Your task to perform on an android device: What is the recent news? Image 0: 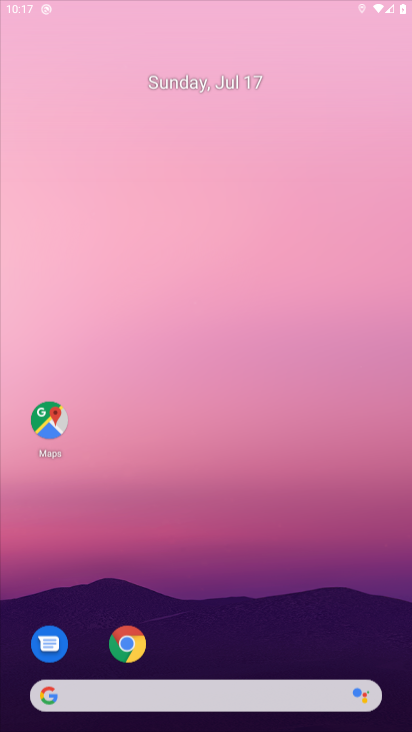
Step 0: press home button
Your task to perform on an android device: What is the recent news? Image 1: 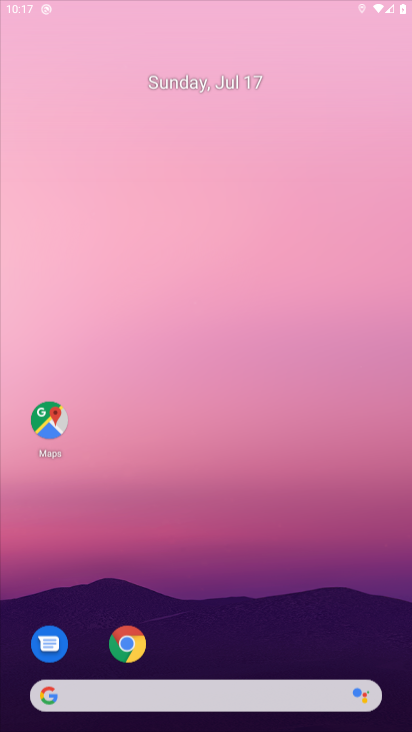
Step 1: click (368, 19)
Your task to perform on an android device: What is the recent news? Image 2: 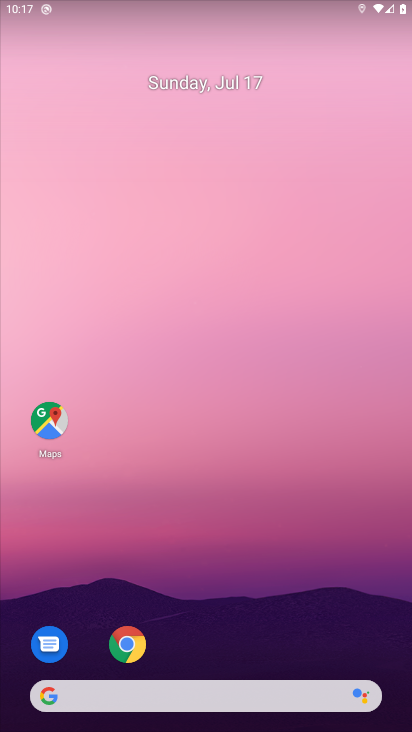
Step 2: click (48, 689)
Your task to perform on an android device: What is the recent news? Image 3: 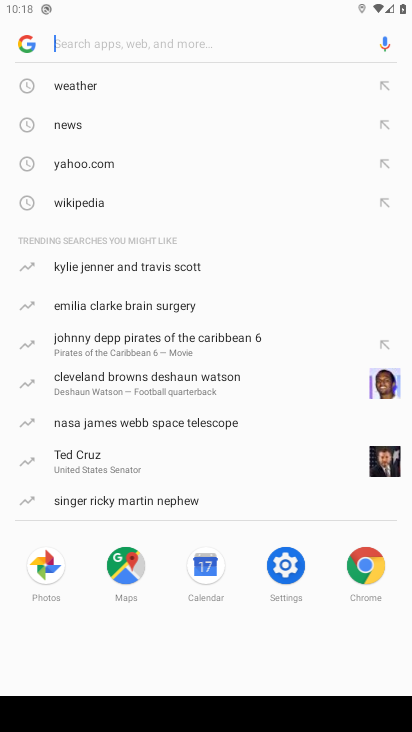
Step 3: type " recent news"
Your task to perform on an android device: What is the recent news? Image 4: 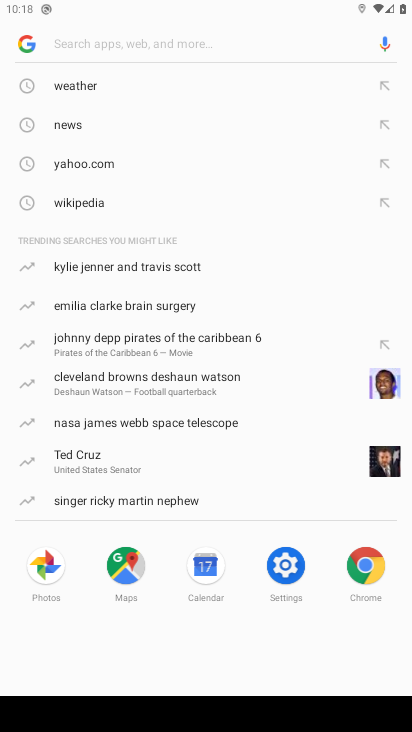
Step 4: click (99, 43)
Your task to perform on an android device: What is the recent news? Image 5: 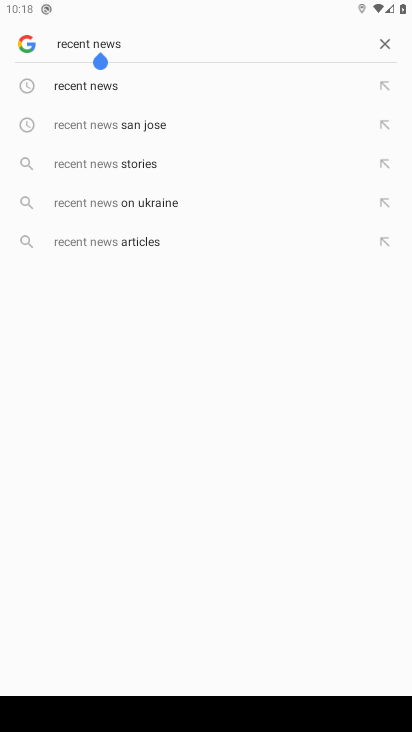
Step 5: press enter
Your task to perform on an android device: What is the recent news? Image 6: 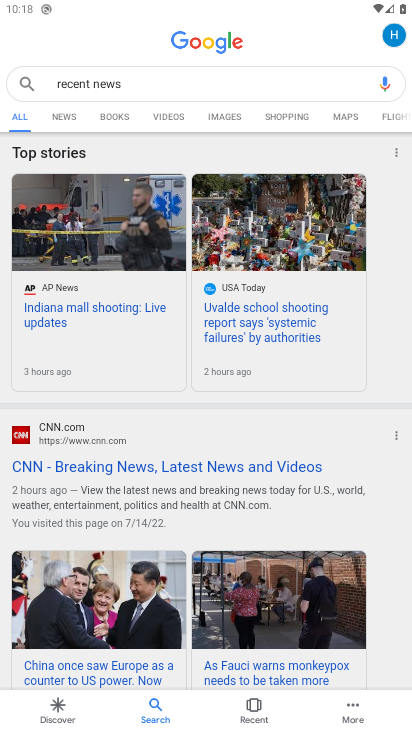
Step 6: task complete